Your task to perform on an android device: check storage Image 0: 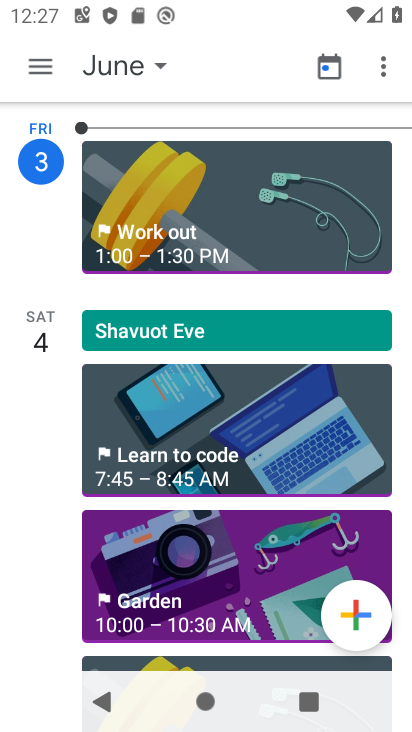
Step 0: press home button
Your task to perform on an android device: check storage Image 1: 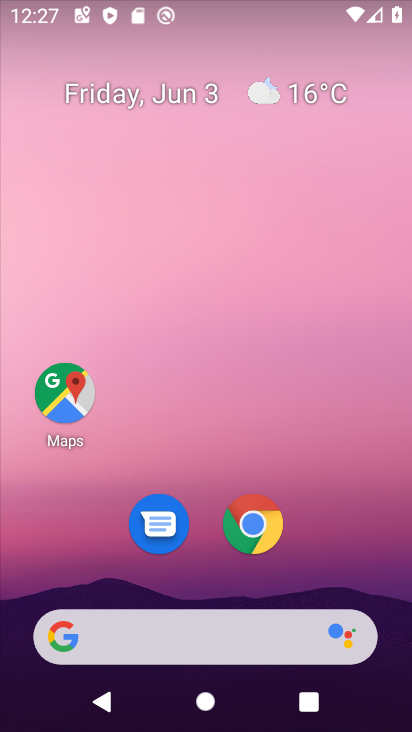
Step 1: drag from (317, 537) to (334, 10)
Your task to perform on an android device: check storage Image 2: 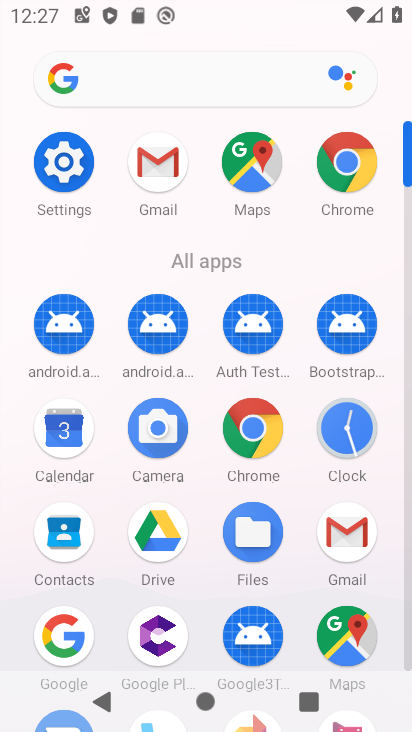
Step 2: click (73, 170)
Your task to perform on an android device: check storage Image 3: 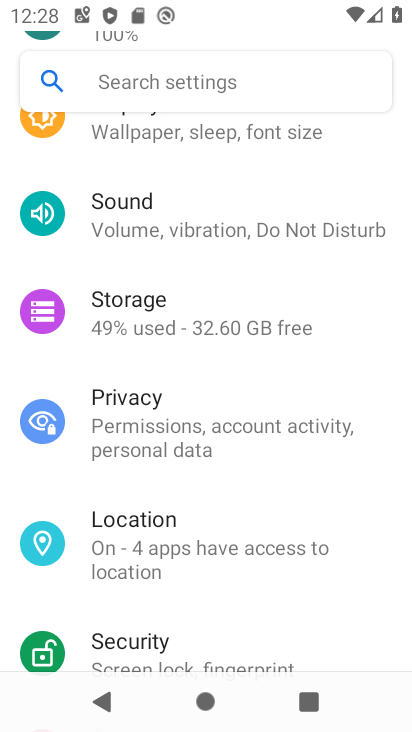
Step 3: click (230, 313)
Your task to perform on an android device: check storage Image 4: 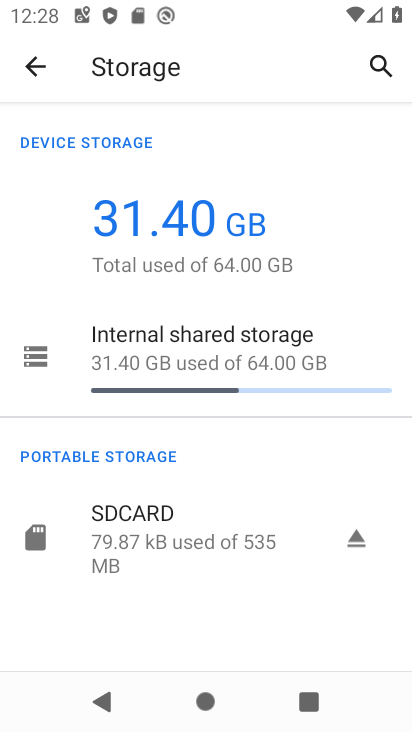
Step 4: task complete